Your task to perform on an android device: open wifi settings Image 0: 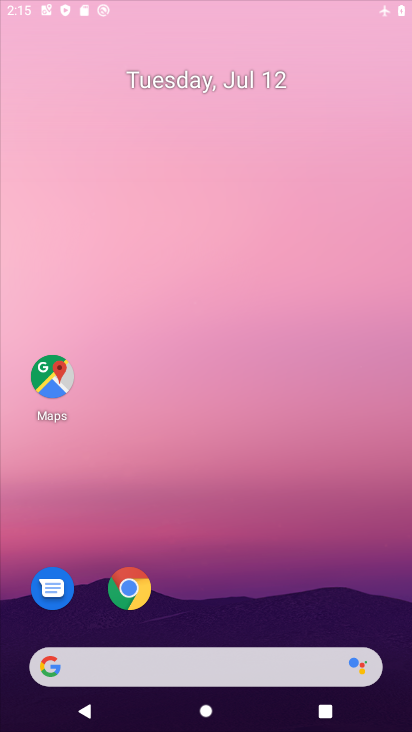
Step 0: drag from (194, 662) to (180, 28)
Your task to perform on an android device: open wifi settings Image 1: 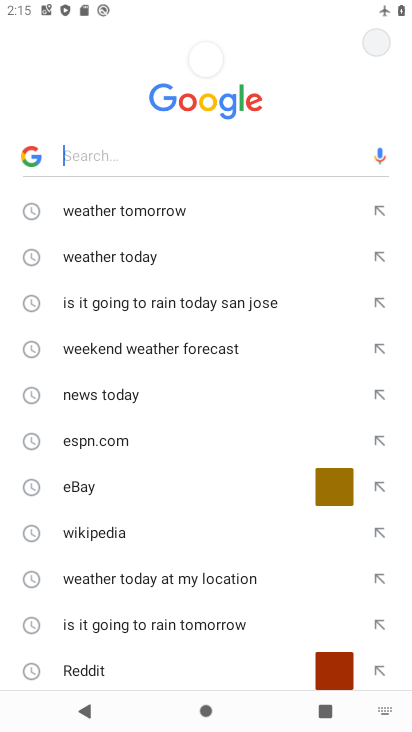
Step 1: press home button
Your task to perform on an android device: open wifi settings Image 2: 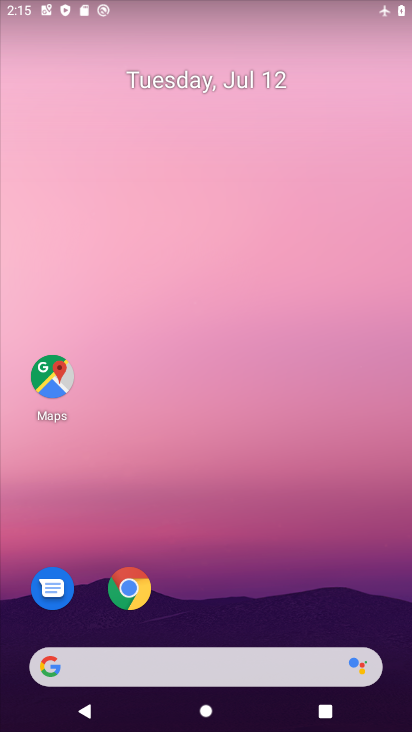
Step 2: drag from (202, 669) to (157, 133)
Your task to perform on an android device: open wifi settings Image 3: 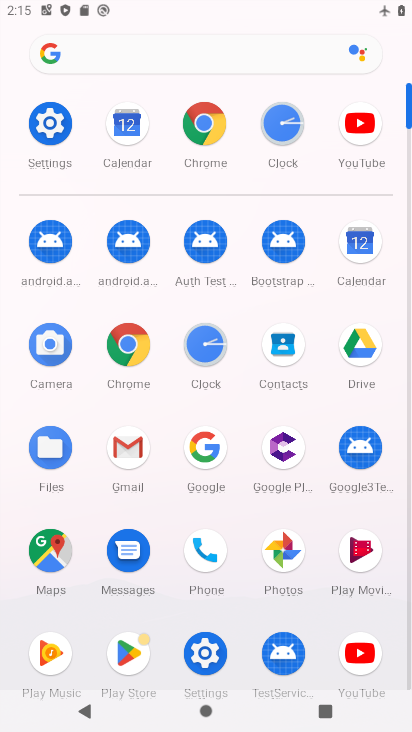
Step 3: click (45, 134)
Your task to perform on an android device: open wifi settings Image 4: 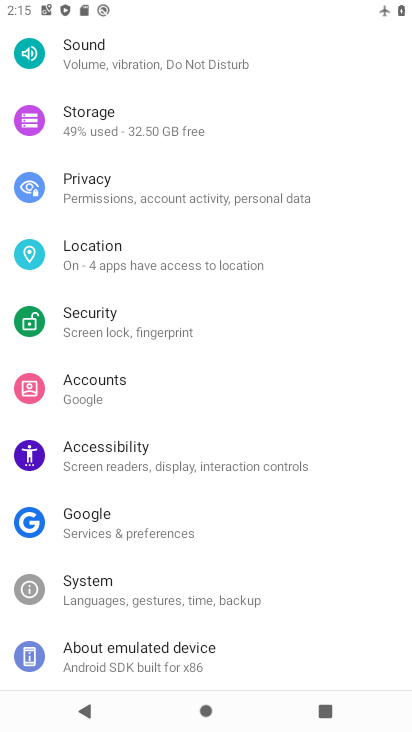
Step 4: drag from (143, 69) to (119, 577)
Your task to perform on an android device: open wifi settings Image 5: 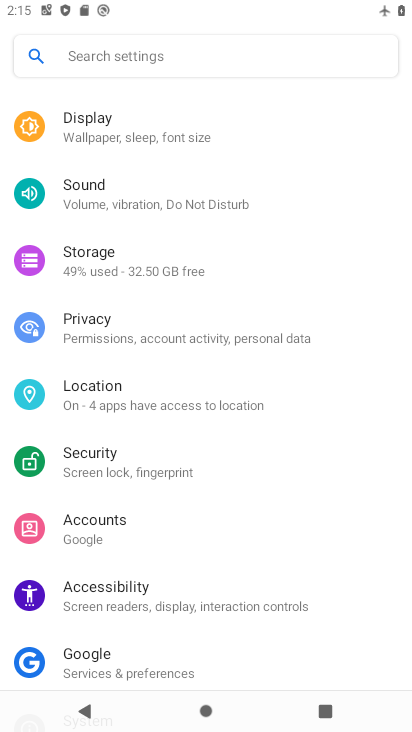
Step 5: drag from (124, 162) to (179, 715)
Your task to perform on an android device: open wifi settings Image 6: 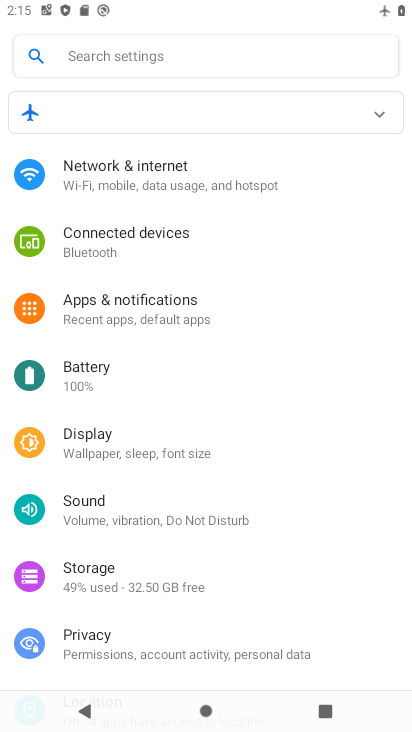
Step 6: click (132, 179)
Your task to perform on an android device: open wifi settings Image 7: 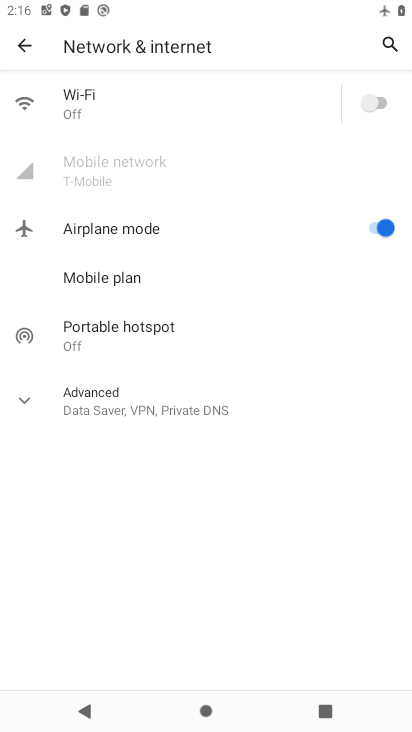
Step 7: task complete